Your task to perform on an android device: Open settings on Google Maps Image 0: 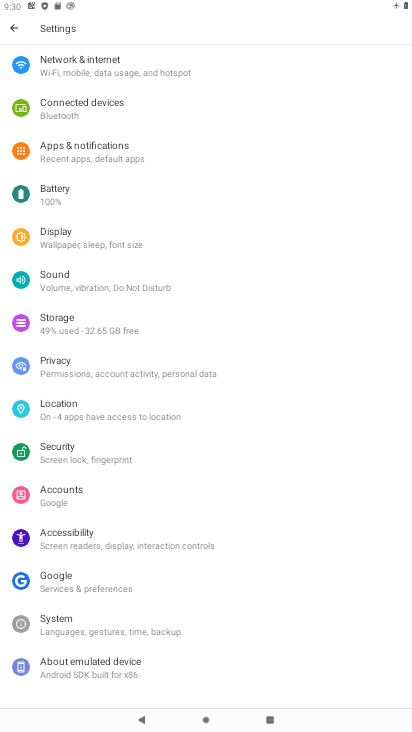
Step 0: press home button
Your task to perform on an android device: Open settings on Google Maps Image 1: 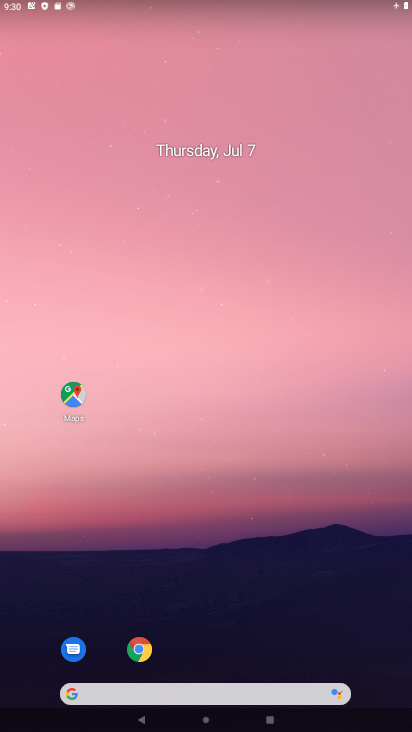
Step 1: click (222, 721)
Your task to perform on an android device: Open settings on Google Maps Image 2: 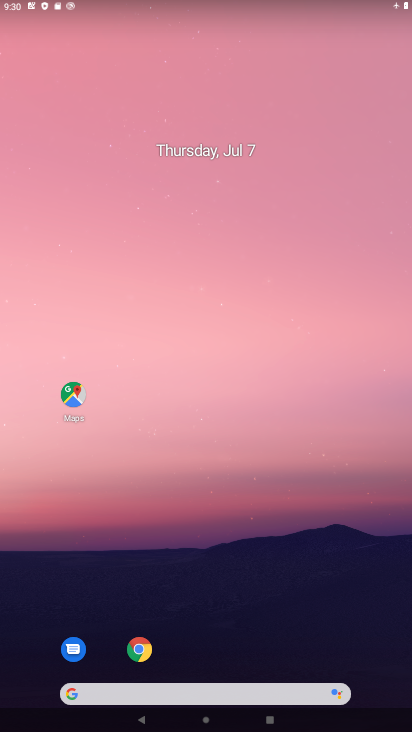
Step 2: drag from (223, 459) to (222, 372)
Your task to perform on an android device: Open settings on Google Maps Image 3: 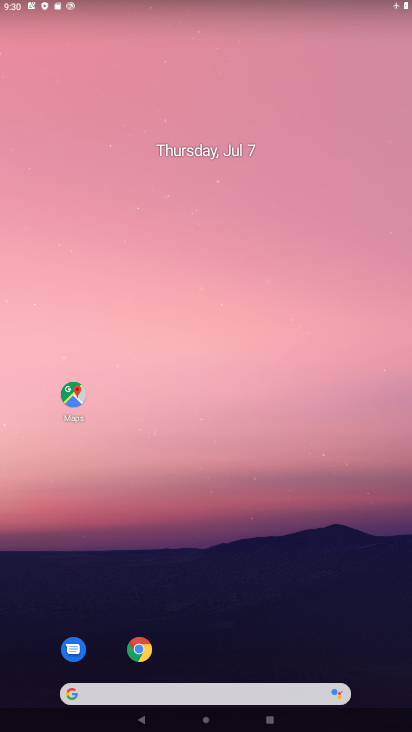
Step 3: drag from (233, 721) to (227, 671)
Your task to perform on an android device: Open settings on Google Maps Image 4: 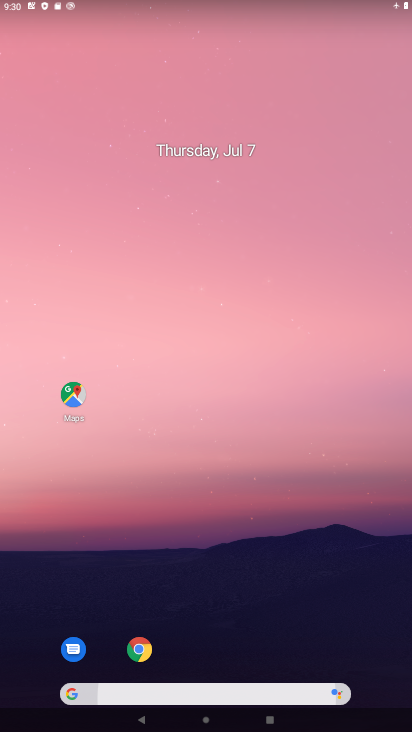
Step 4: drag from (215, 364) to (215, 184)
Your task to perform on an android device: Open settings on Google Maps Image 5: 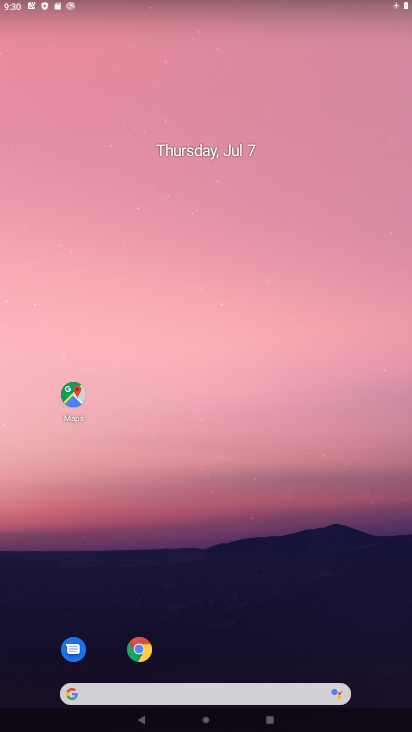
Step 5: drag from (236, 727) to (228, 312)
Your task to perform on an android device: Open settings on Google Maps Image 6: 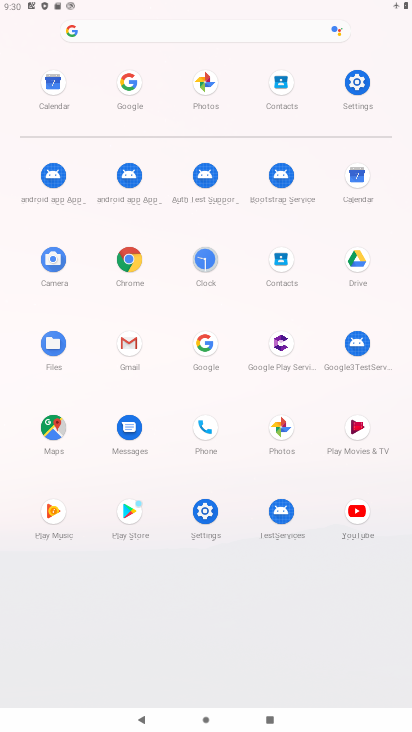
Step 6: click (50, 428)
Your task to perform on an android device: Open settings on Google Maps Image 7: 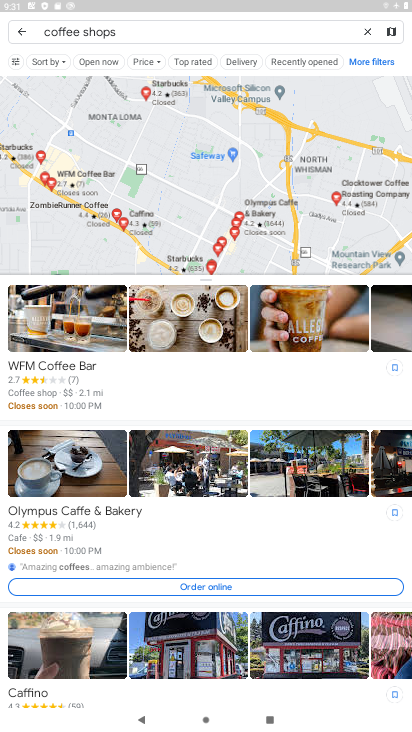
Step 7: click (21, 29)
Your task to perform on an android device: Open settings on Google Maps Image 8: 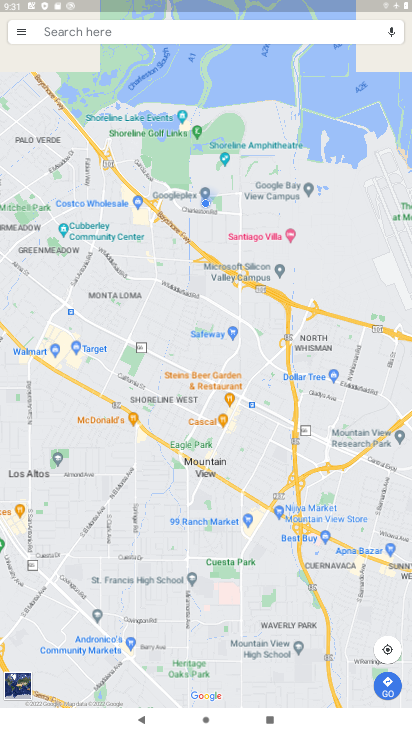
Step 8: click (23, 30)
Your task to perform on an android device: Open settings on Google Maps Image 9: 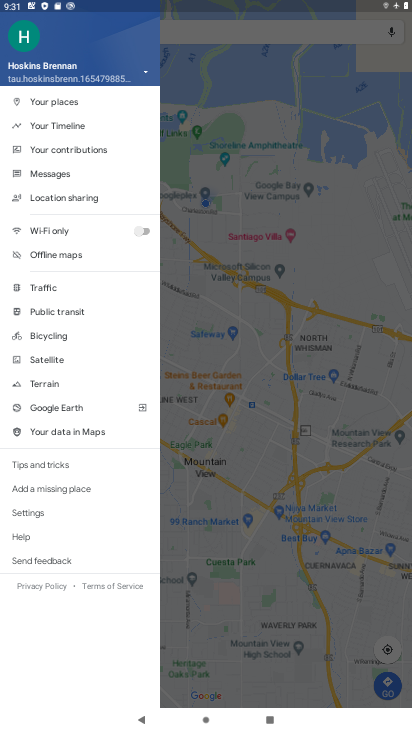
Step 9: click (38, 515)
Your task to perform on an android device: Open settings on Google Maps Image 10: 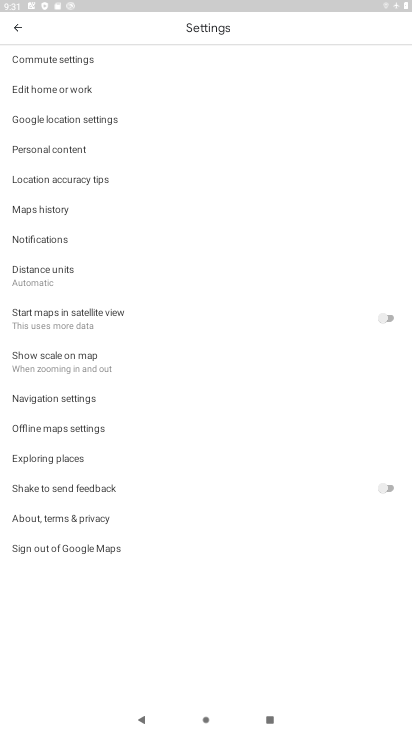
Step 10: task complete